Your task to perform on an android device: turn notification dots on Image 0: 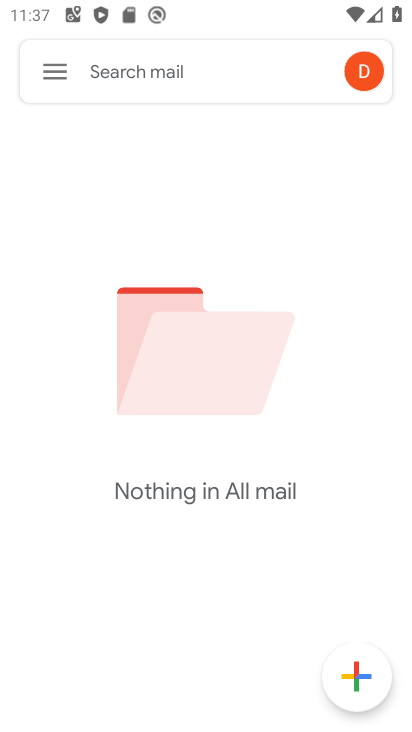
Step 0: press home button
Your task to perform on an android device: turn notification dots on Image 1: 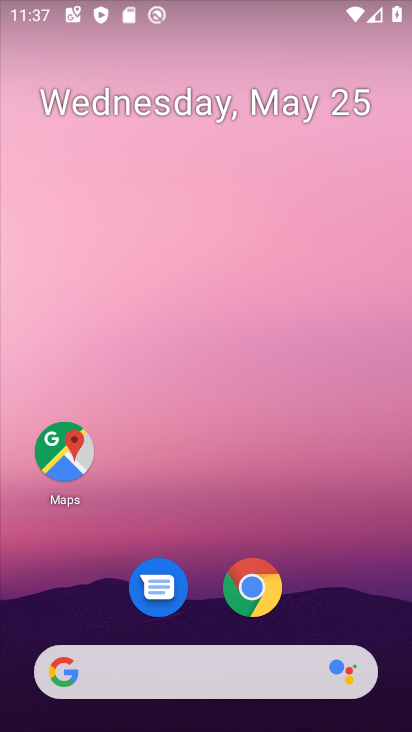
Step 1: drag from (232, 695) to (301, 241)
Your task to perform on an android device: turn notification dots on Image 2: 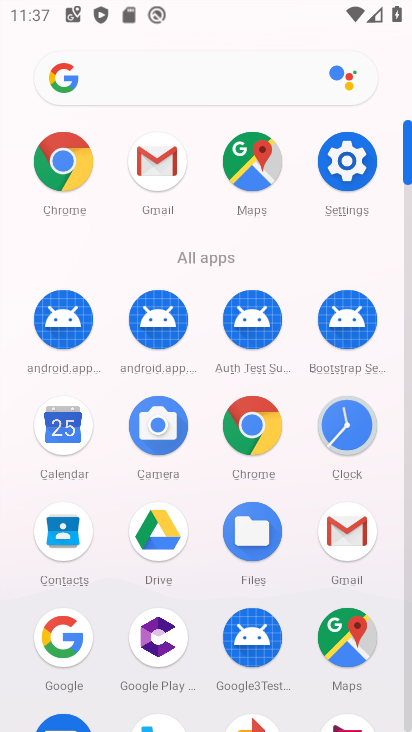
Step 2: click (341, 165)
Your task to perform on an android device: turn notification dots on Image 3: 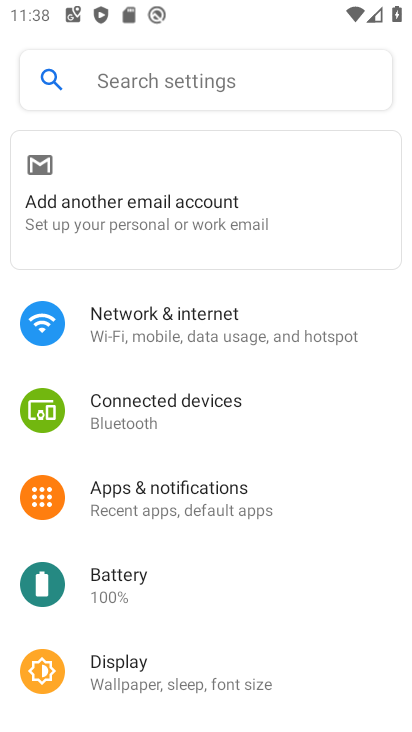
Step 3: click (177, 70)
Your task to perform on an android device: turn notification dots on Image 4: 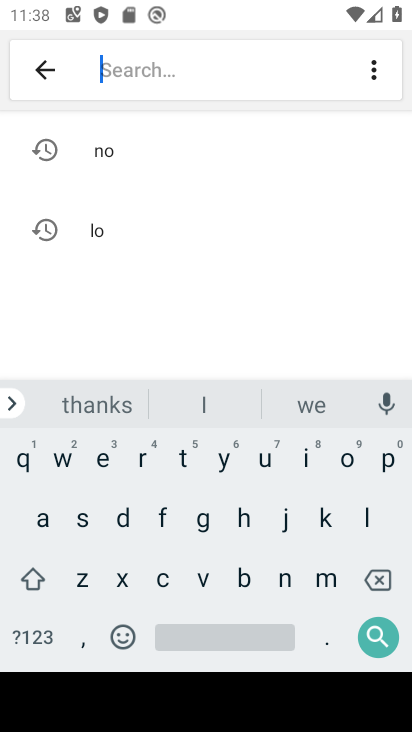
Step 4: click (121, 539)
Your task to perform on an android device: turn notification dots on Image 5: 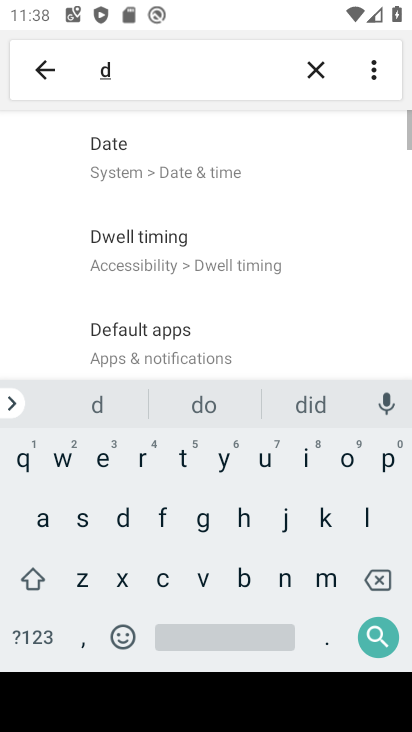
Step 5: click (351, 456)
Your task to perform on an android device: turn notification dots on Image 6: 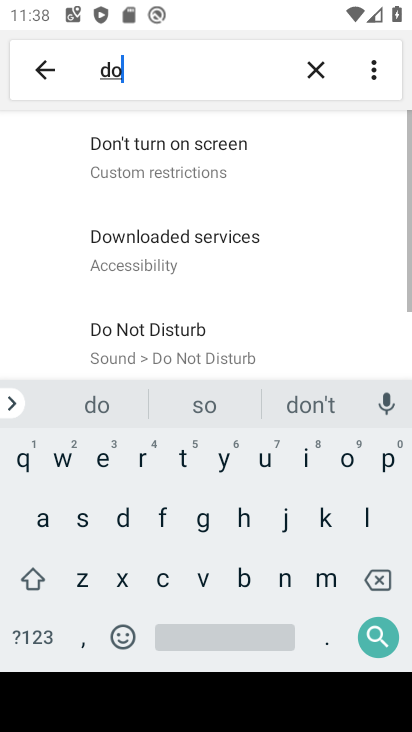
Step 6: click (182, 464)
Your task to perform on an android device: turn notification dots on Image 7: 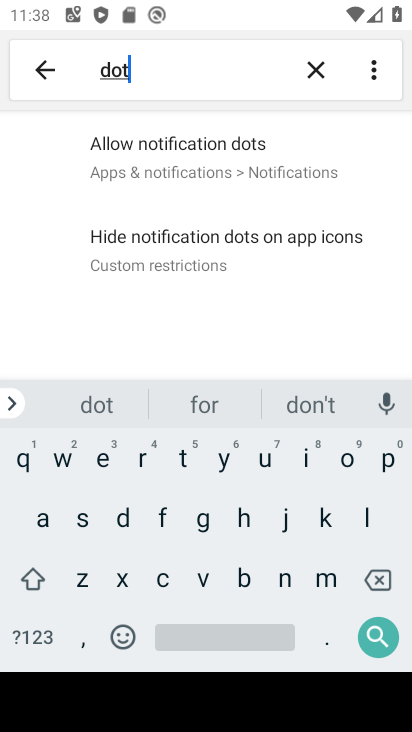
Step 7: click (211, 163)
Your task to perform on an android device: turn notification dots on Image 8: 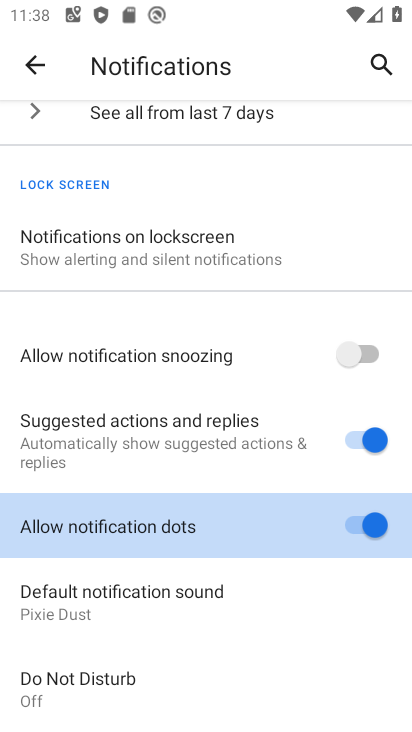
Step 8: click (367, 531)
Your task to perform on an android device: turn notification dots on Image 9: 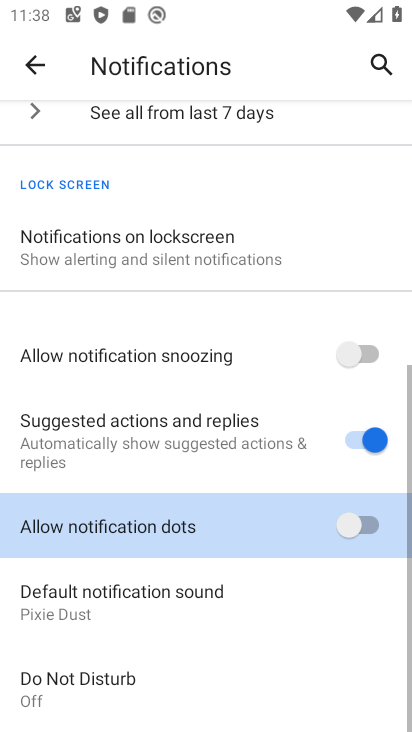
Step 9: click (367, 531)
Your task to perform on an android device: turn notification dots on Image 10: 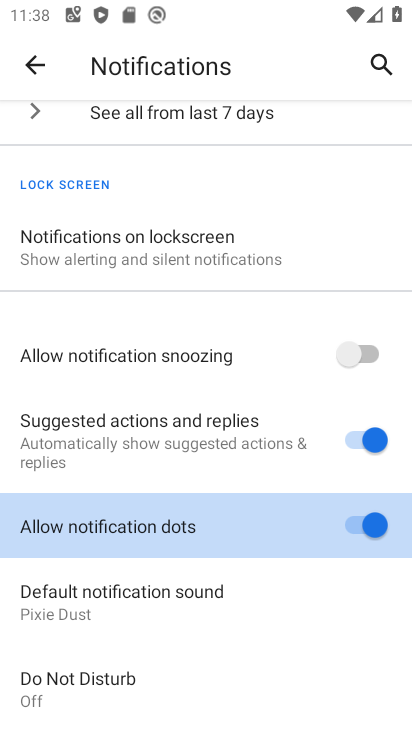
Step 10: task complete